Your task to perform on an android device: Open Youtube and go to the subscriptions tab Image 0: 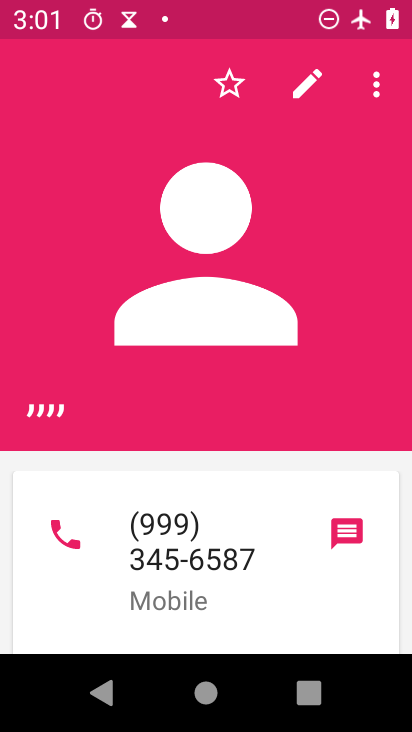
Step 0: press home button
Your task to perform on an android device: Open Youtube and go to the subscriptions tab Image 1: 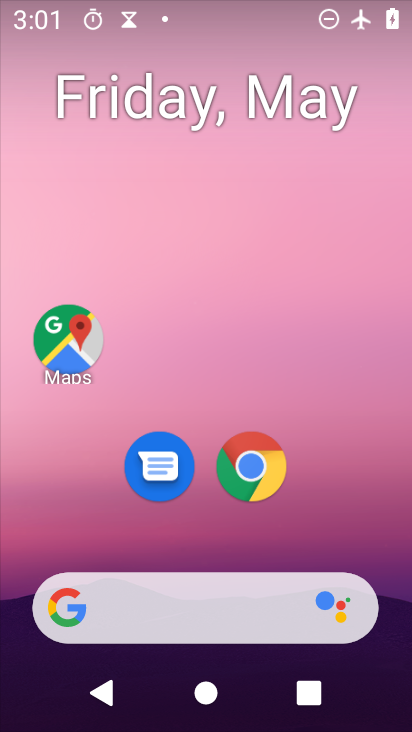
Step 1: drag from (349, 536) to (386, 49)
Your task to perform on an android device: Open Youtube and go to the subscriptions tab Image 2: 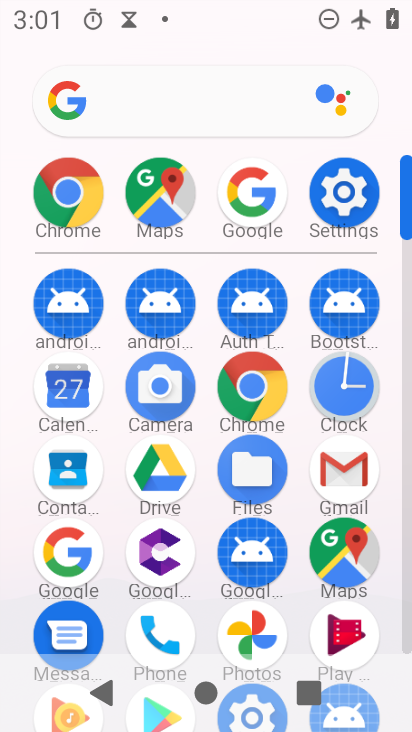
Step 2: drag from (392, 504) to (395, 127)
Your task to perform on an android device: Open Youtube and go to the subscriptions tab Image 3: 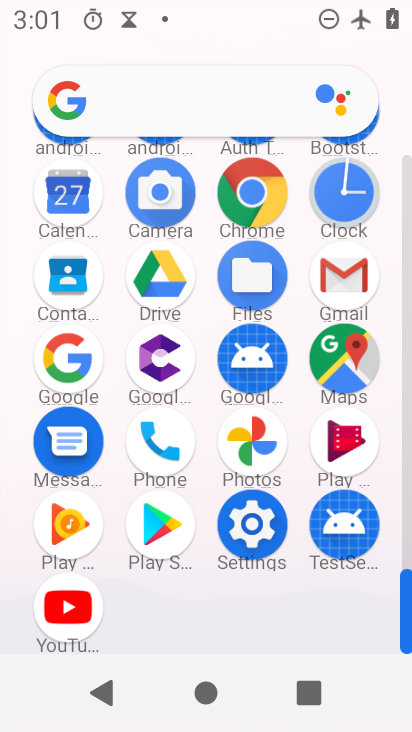
Step 3: click (54, 612)
Your task to perform on an android device: Open Youtube and go to the subscriptions tab Image 4: 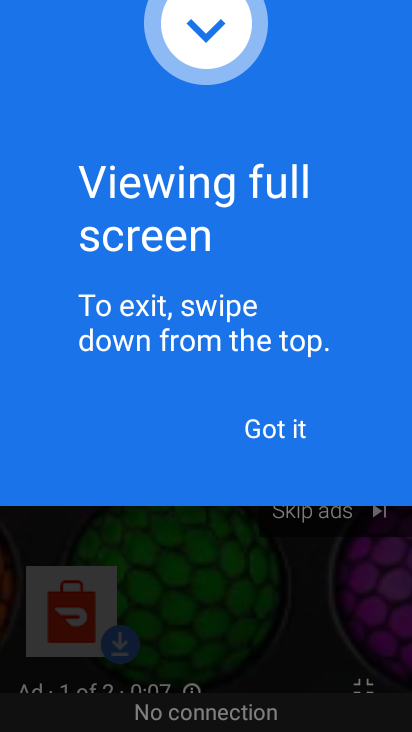
Step 4: press back button
Your task to perform on an android device: Open Youtube and go to the subscriptions tab Image 5: 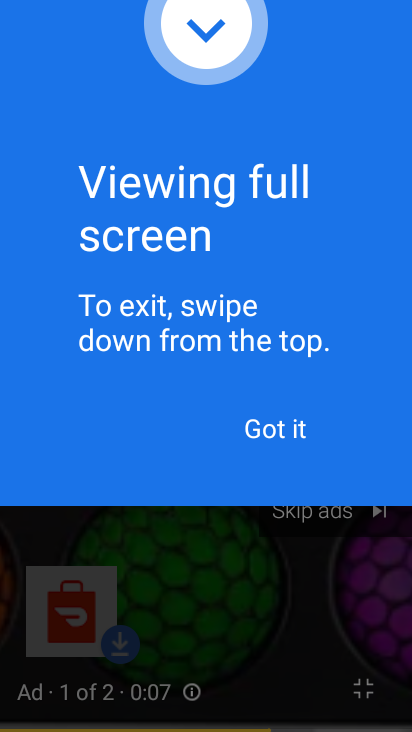
Step 5: click (269, 436)
Your task to perform on an android device: Open Youtube and go to the subscriptions tab Image 6: 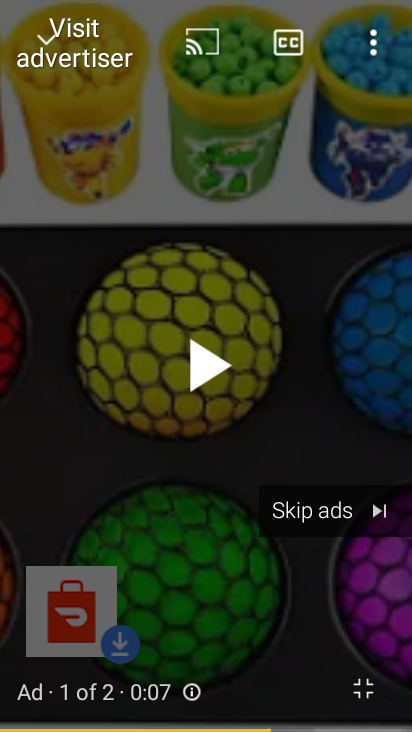
Step 6: click (364, 687)
Your task to perform on an android device: Open Youtube and go to the subscriptions tab Image 7: 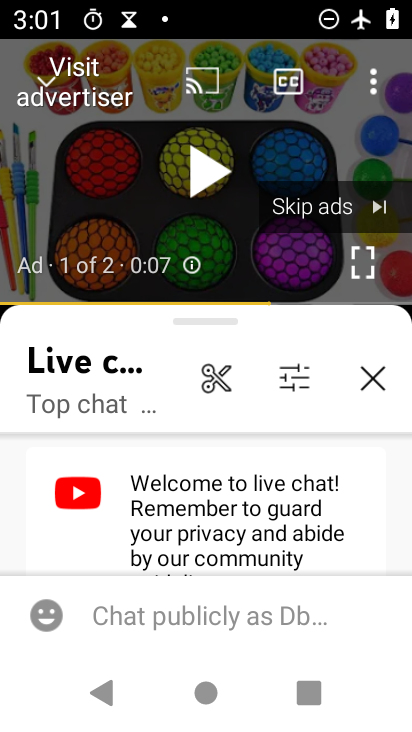
Step 7: click (366, 371)
Your task to perform on an android device: Open Youtube and go to the subscriptions tab Image 8: 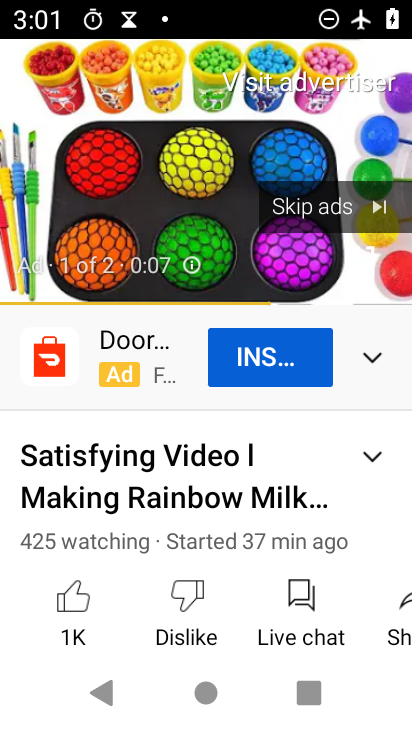
Step 8: press back button
Your task to perform on an android device: Open Youtube and go to the subscriptions tab Image 9: 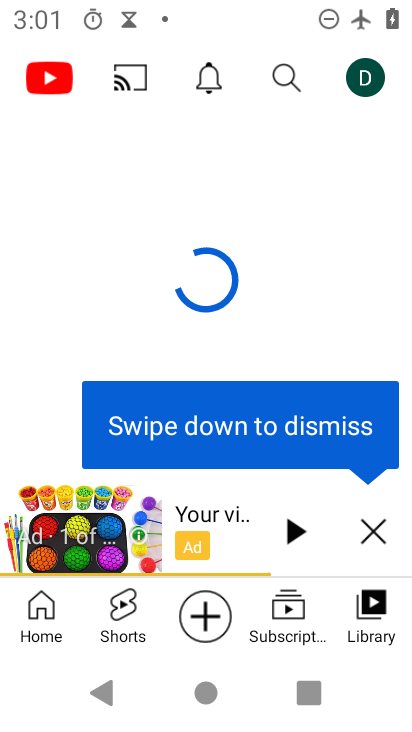
Step 9: click (373, 536)
Your task to perform on an android device: Open Youtube and go to the subscriptions tab Image 10: 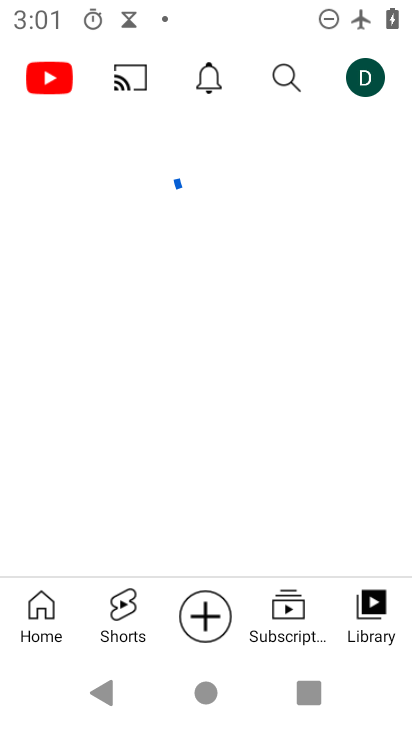
Step 10: click (278, 619)
Your task to perform on an android device: Open Youtube and go to the subscriptions tab Image 11: 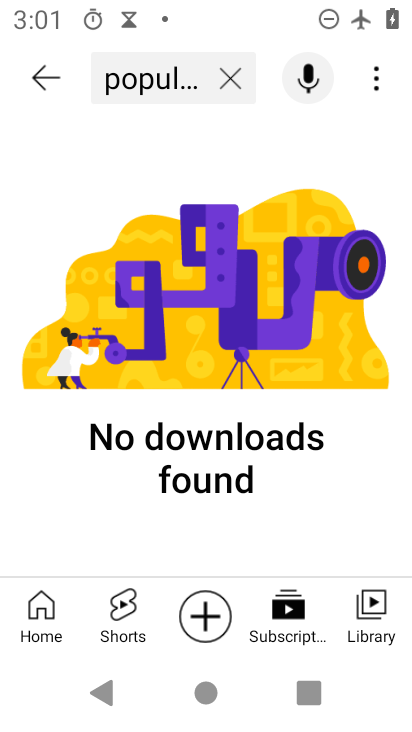
Step 11: task complete